Your task to perform on an android device: turn off smart reply in the gmail app Image 0: 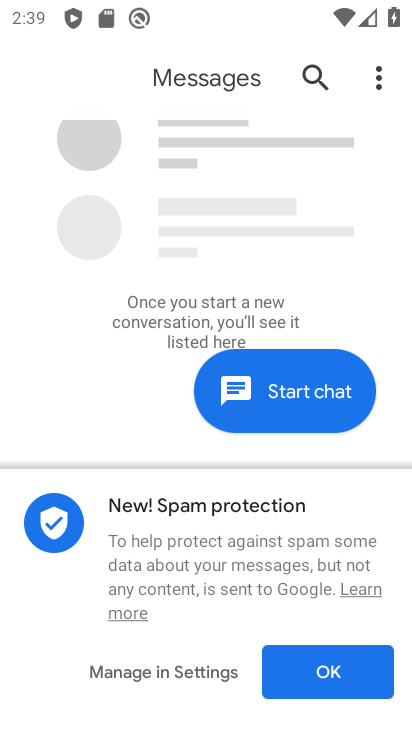
Step 0: press home button
Your task to perform on an android device: turn off smart reply in the gmail app Image 1: 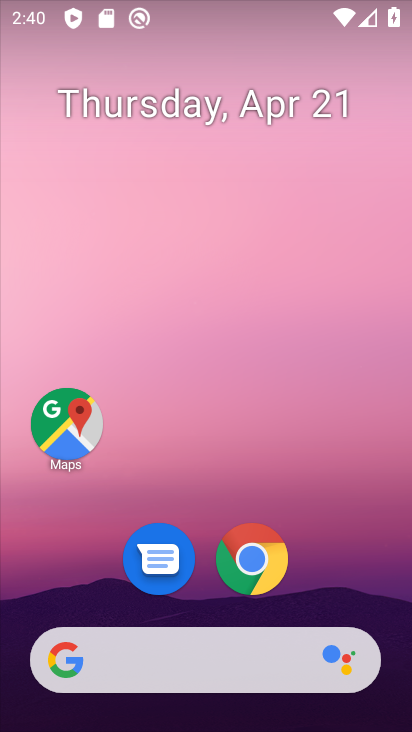
Step 1: drag from (375, 588) to (287, 110)
Your task to perform on an android device: turn off smart reply in the gmail app Image 2: 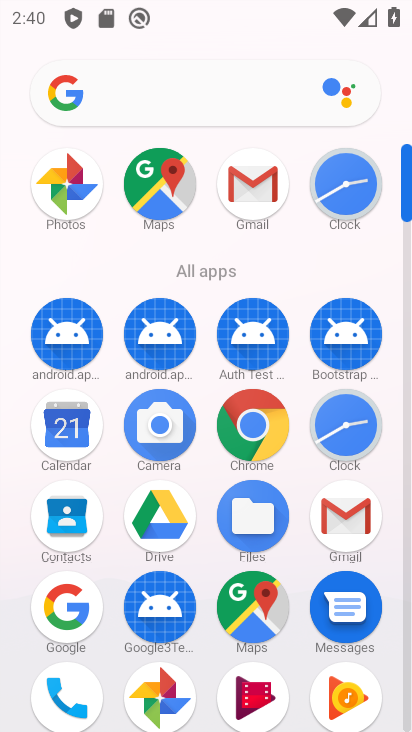
Step 2: click (331, 541)
Your task to perform on an android device: turn off smart reply in the gmail app Image 3: 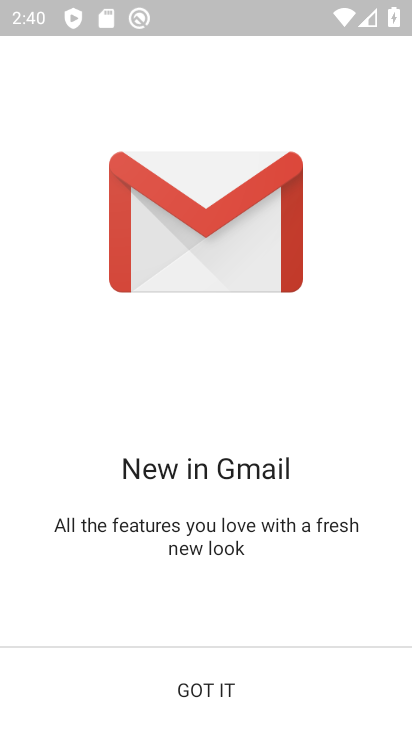
Step 3: click (217, 682)
Your task to perform on an android device: turn off smart reply in the gmail app Image 4: 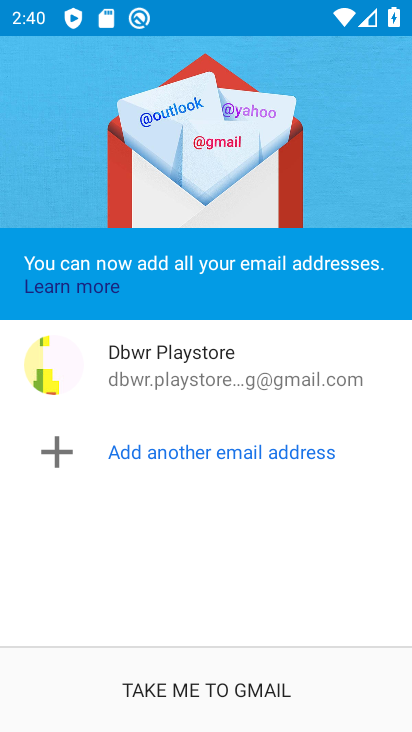
Step 4: click (235, 662)
Your task to perform on an android device: turn off smart reply in the gmail app Image 5: 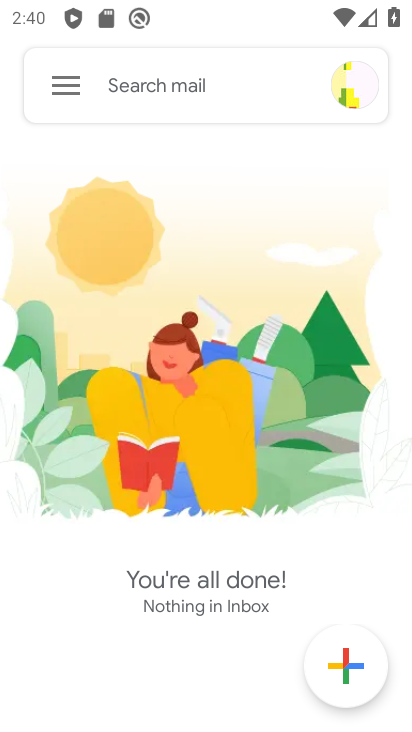
Step 5: click (78, 92)
Your task to perform on an android device: turn off smart reply in the gmail app Image 6: 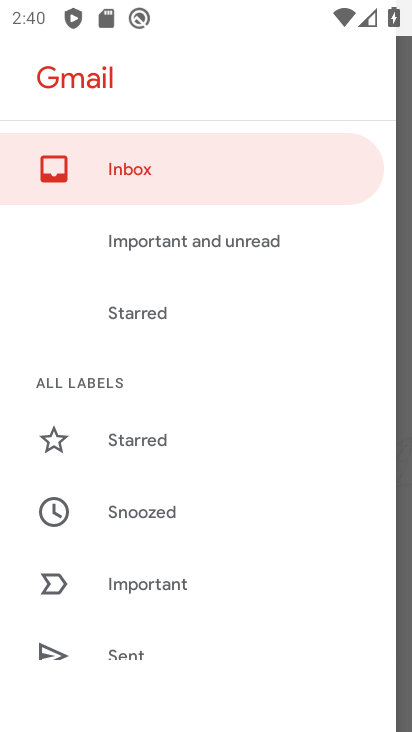
Step 6: drag from (230, 575) to (140, 143)
Your task to perform on an android device: turn off smart reply in the gmail app Image 7: 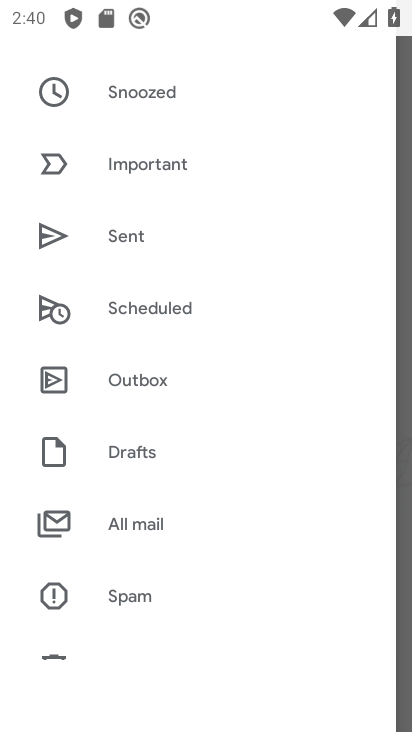
Step 7: drag from (173, 549) to (132, 127)
Your task to perform on an android device: turn off smart reply in the gmail app Image 8: 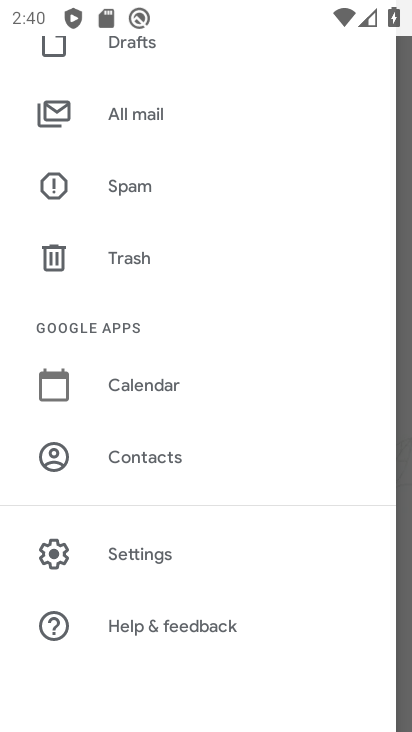
Step 8: click (164, 536)
Your task to perform on an android device: turn off smart reply in the gmail app Image 9: 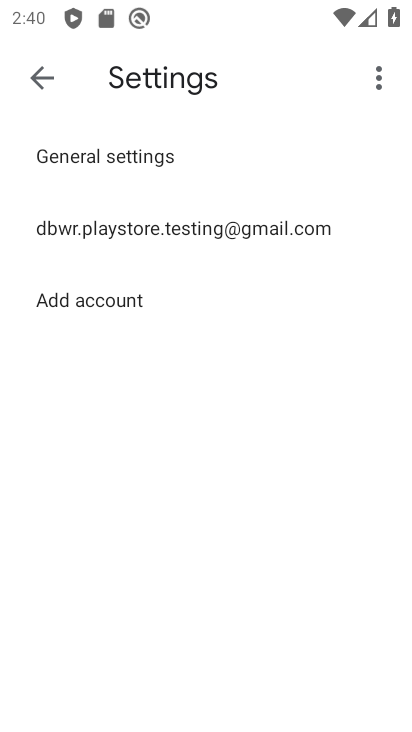
Step 9: click (181, 244)
Your task to perform on an android device: turn off smart reply in the gmail app Image 10: 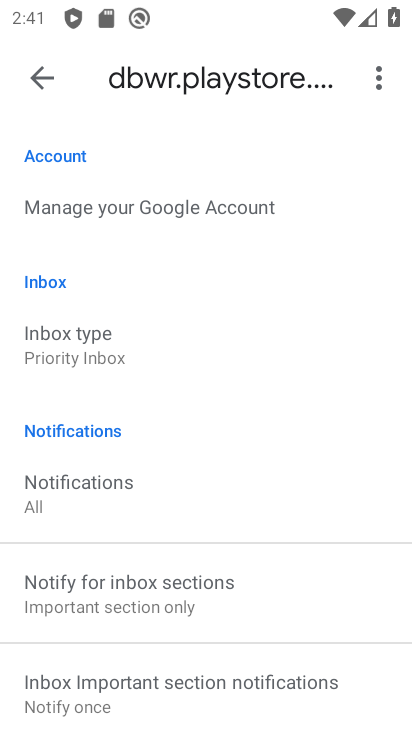
Step 10: drag from (204, 510) to (176, 124)
Your task to perform on an android device: turn off smart reply in the gmail app Image 11: 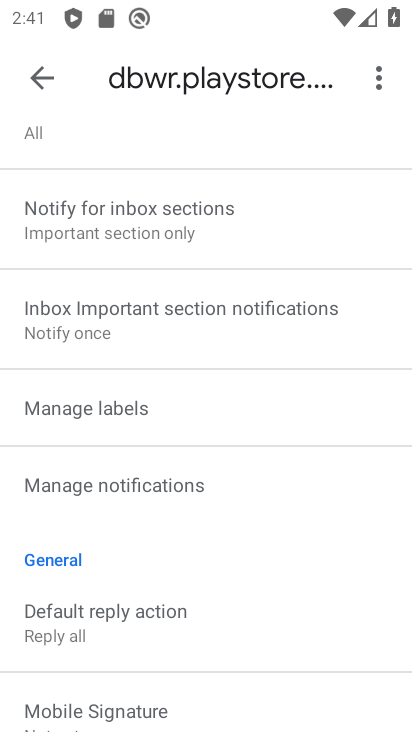
Step 11: drag from (190, 589) to (149, 99)
Your task to perform on an android device: turn off smart reply in the gmail app Image 12: 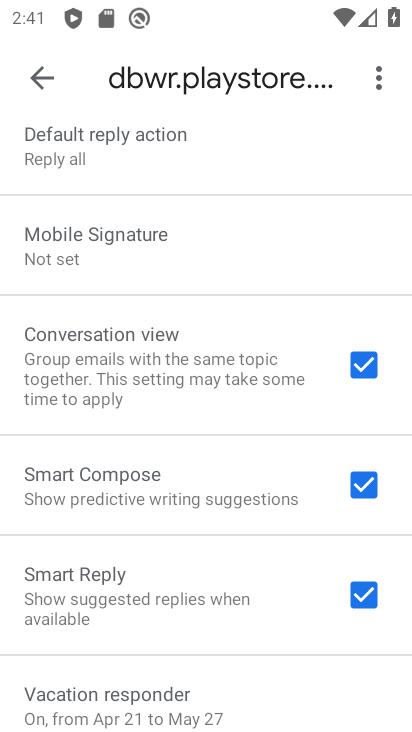
Step 12: click (374, 601)
Your task to perform on an android device: turn off smart reply in the gmail app Image 13: 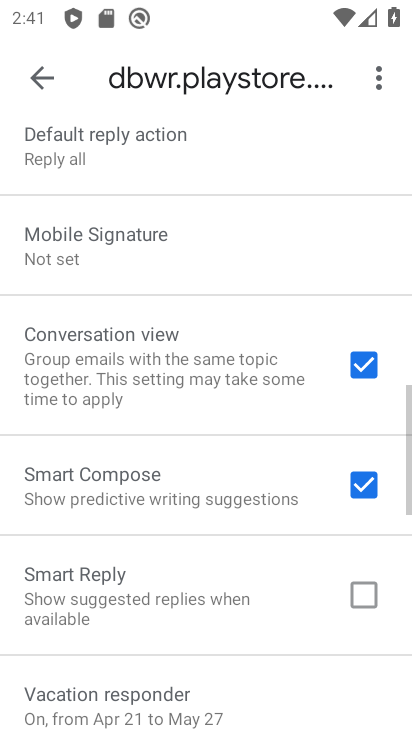
Step 13: task complete